Your task to perform on an android device: Turn off the flashlight Image 0: 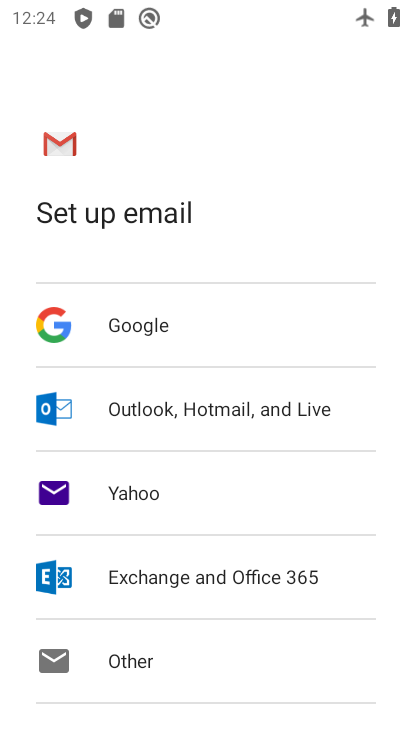
Step 0: press home button
Your task to perform on an android device: Turn off the flashlight Image 1: 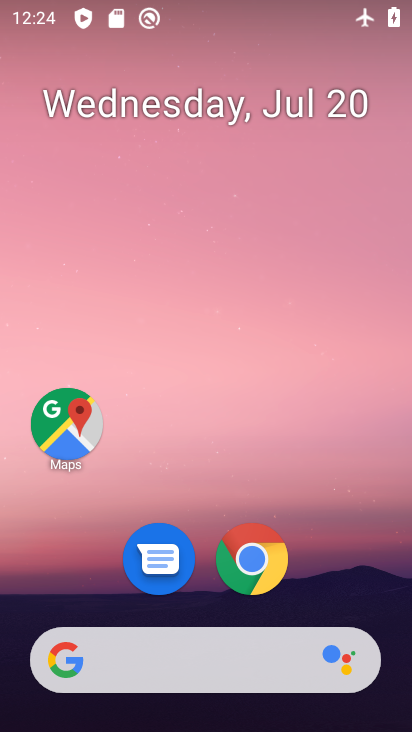
Step 1: drag from (236, 0) to (242, 322)
Your task to perform on an android device: Turn off the flashlight Image 2: 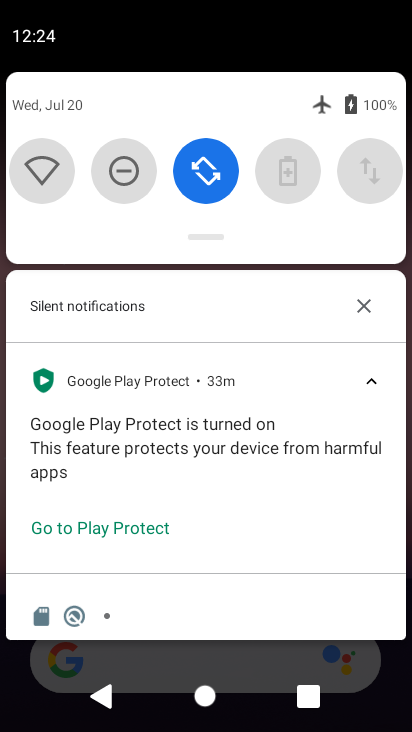
Step 2: drag from (171, 108) to (175, 339)
Your task to perform on an android device: Turn off the flashlight Image 3: 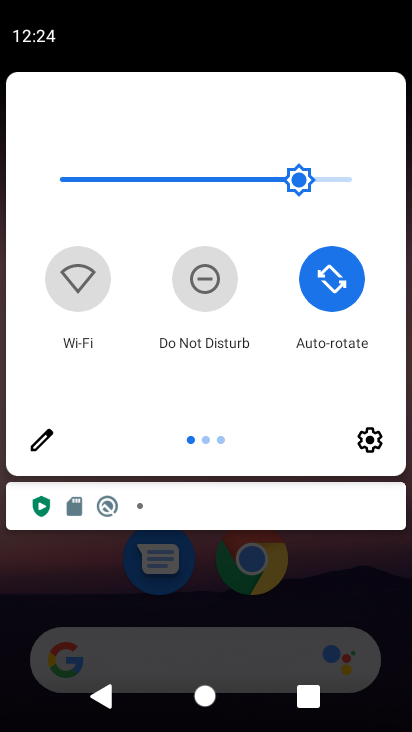
Step 3: click (51, 451)
Your task to perform on an android device: Turn off the flashlight Image 4: 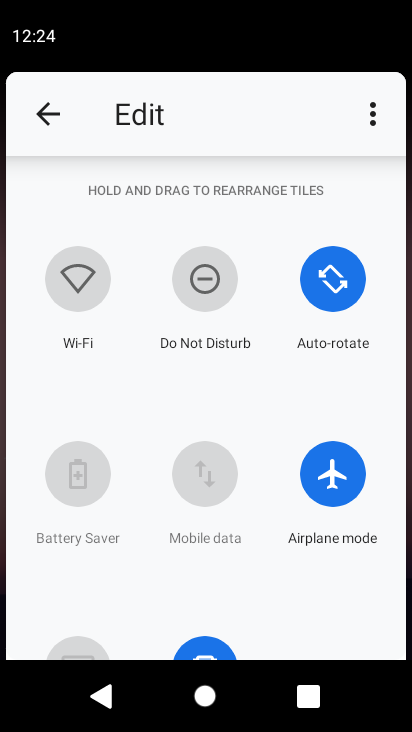
Step 4: task complete